Your task to perform on an android device: turn on wifi Image 0: 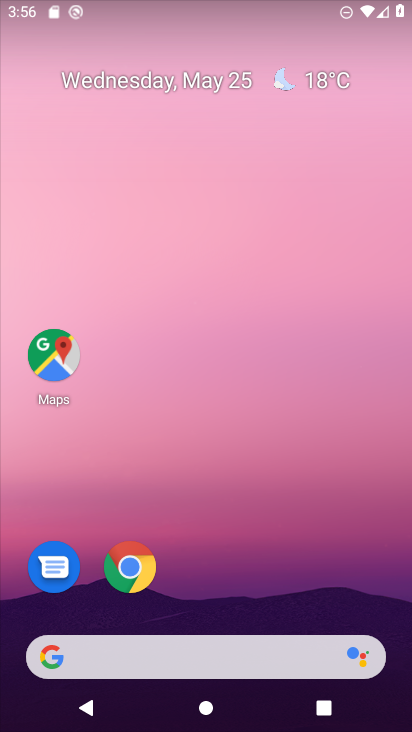
Step 0: drag from (331, 597) to (366, 229)
Your task to perform on an android device: turn on wifi Image 1: 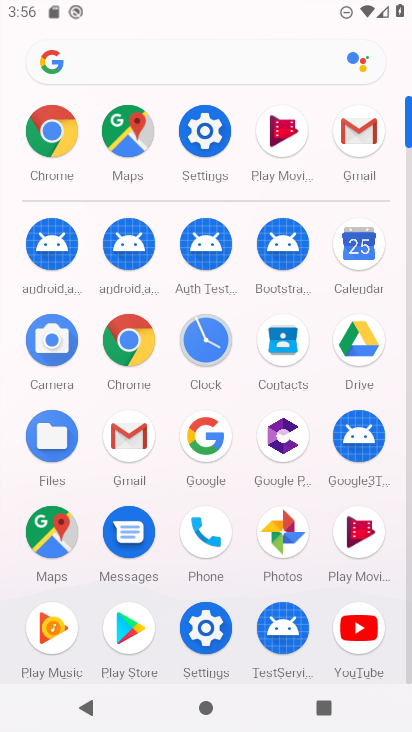
Step 1: click (211, 651)
Your task to perform on an android device: turn on wifi Image 2: 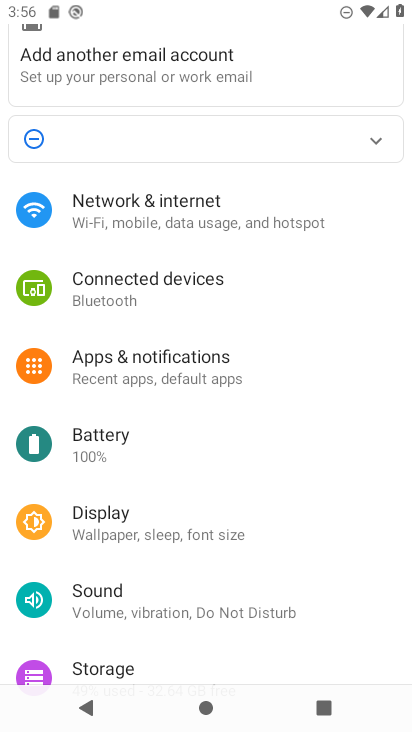
Step 2: drag from (332, 585) to (344, 486)
Your task to perform on an android device: turn on wifi Image 3: 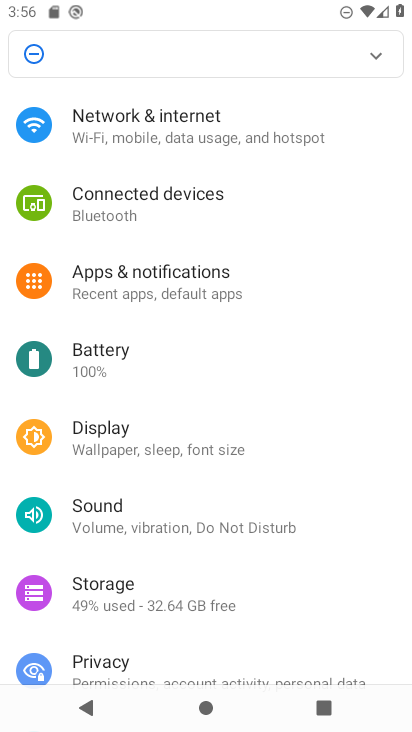
Step 3: drag from (350, 581) to (343, 484)
Your task to perform on an android device: turn on wifi Image 4: 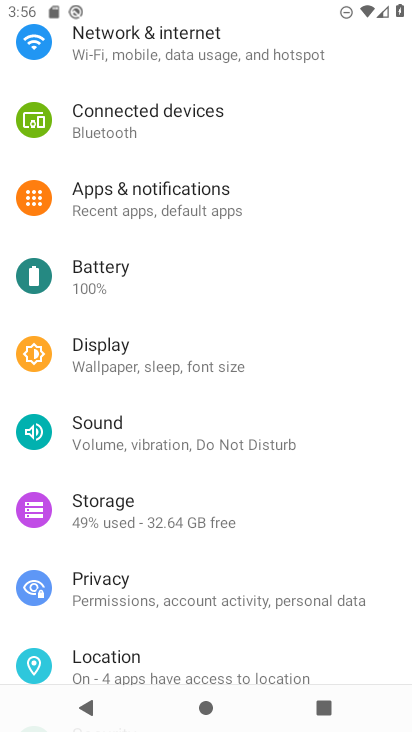
Step 4: drag from (337, 585) to (352, 516)
Your task to perform on an android device: turn on wifi Image 5: 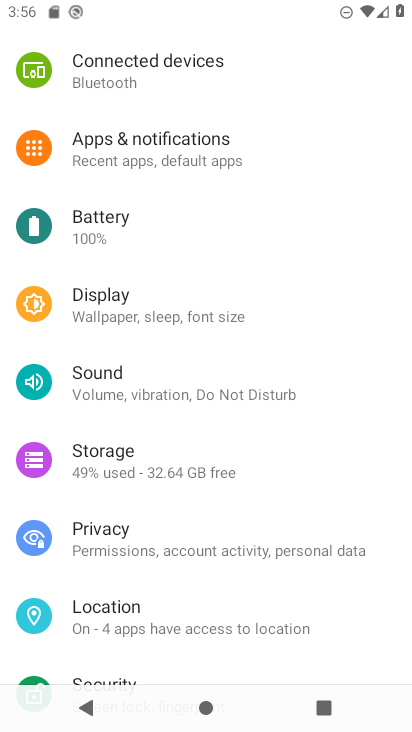
Step 5: drag from (334, 612) to (335, 524)
Your task to perform on an android device: turn on wifi Image 6: 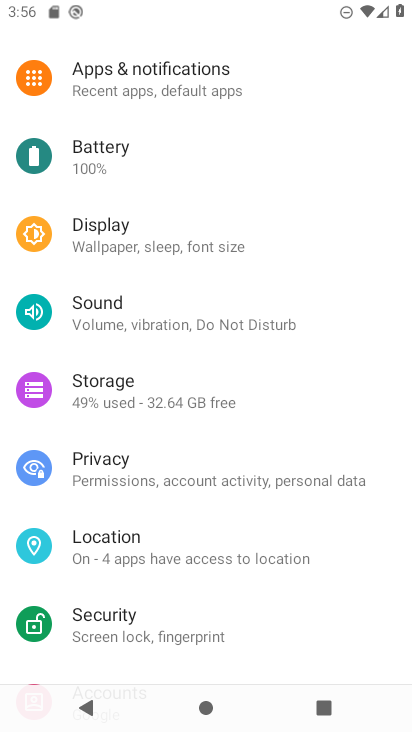
Step 6: drag from (356, 612) to (356, 535)
Your task to perform on an android device: turn on wifi Image 7: 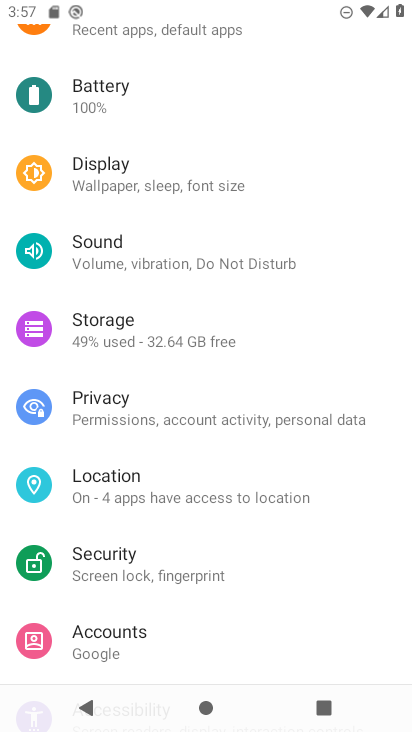
Step 7: drag from (345, 620) to (355, 534)
Your task to perform on an android device: turn on wifi Image 8: 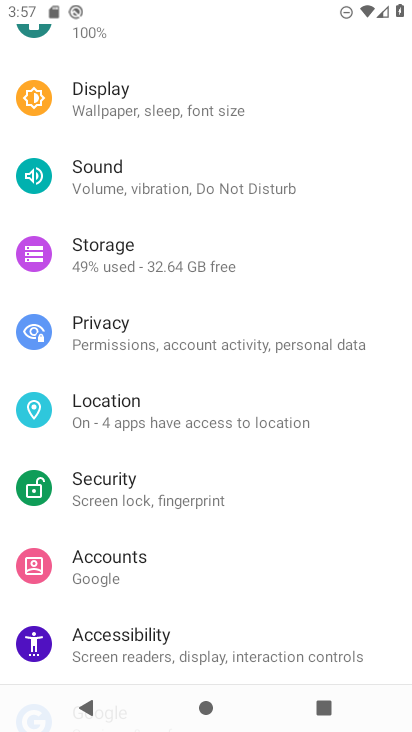
Step 8: drag from (348, 624) to (355, 542)
Your task to perform on an android device: turn on wifi Image 9: 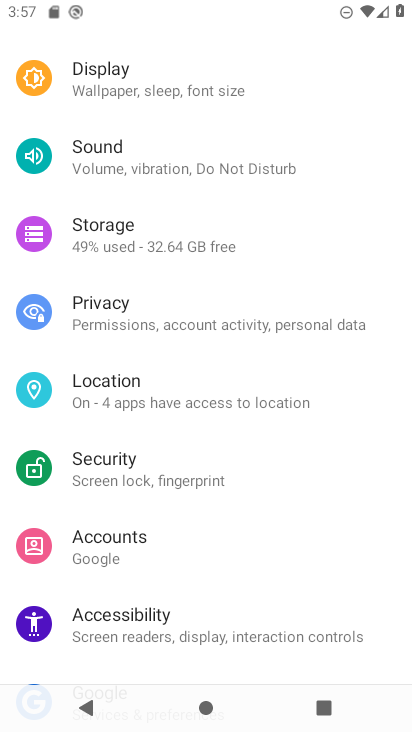
Step 9: drag from (353, 651) to (352, 456)
Your task to perform on an android device: turn on wifi Image 10: 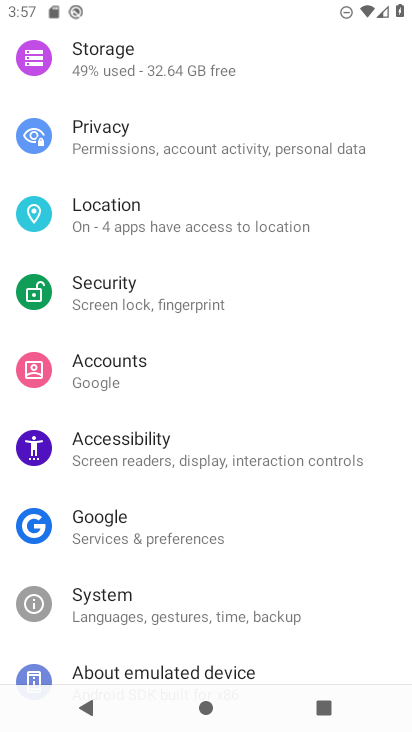
Step 10: drag from (364, 650) to (376, 507)
Your task to perform on an android device: turn on wifi Image 11: 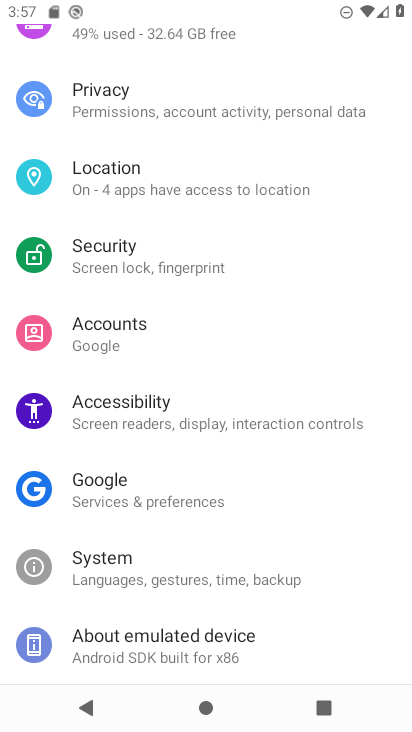
Step 11: drag from (374, 373) to (373, 498)
Your task to perform on an android device: turn on wifi Image 12: 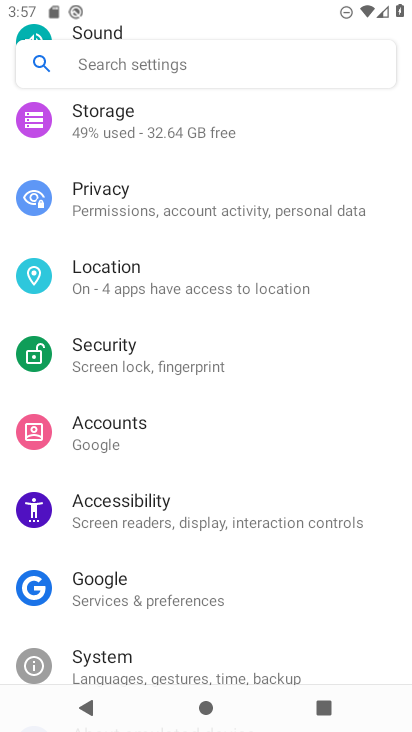
Step 12: drag from (363, 419) to (361, 502)
Your task to perform on an android device: turn on wifi Image 13: 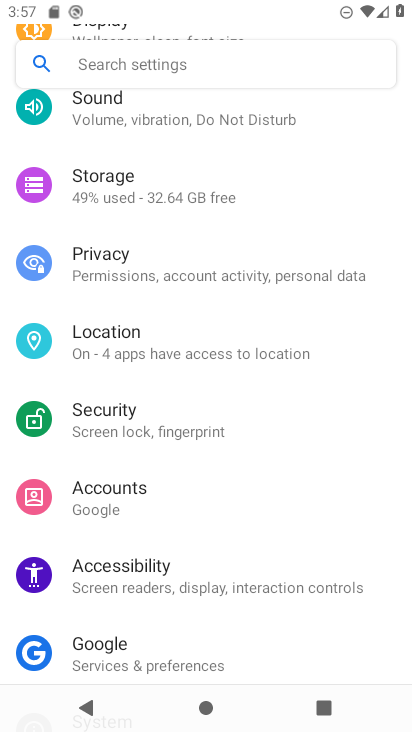
Step 13: drag from (374, 419) to (373, 500)
Your task to perform on an android device: turn on wifi Image 14: 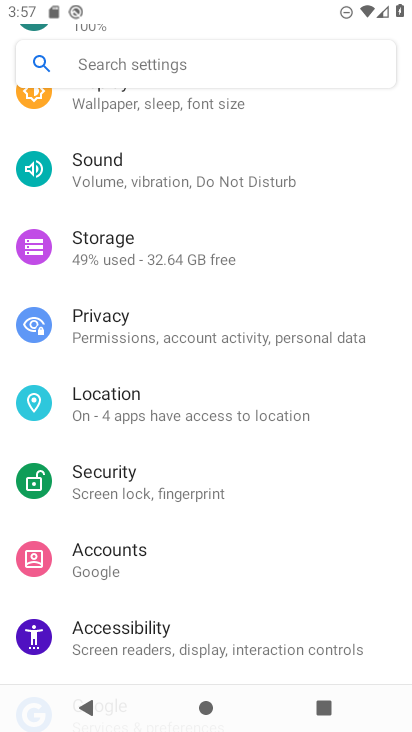
Step 14: drag from (369, 419) to (369, 500)
Your task to perform on an android device: turn on wifi Image 15: 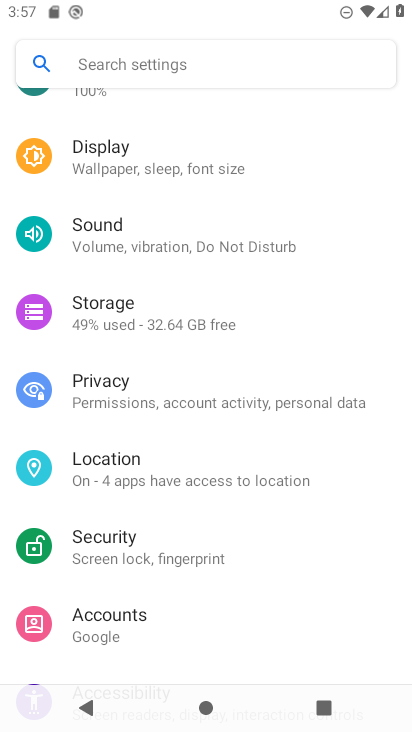
Step 15: drag from (368, 453) to (369, 520)
Your task to perform on an android device: turn on wifi Image 16: 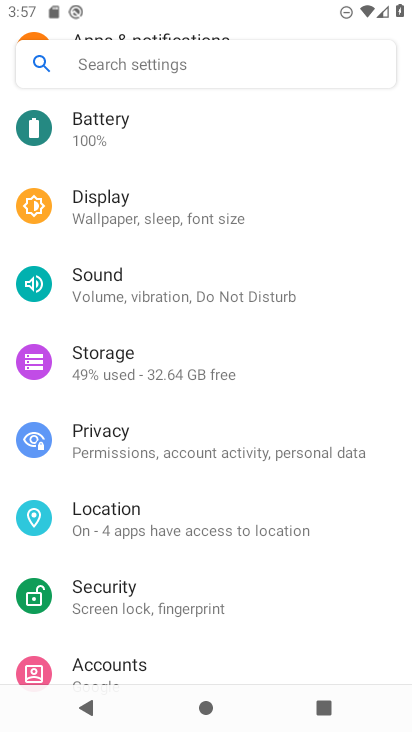
Step 16: drag from (376, 414) to (380, 499)
Your task to perform on an android device: turn on wifi Image 17: 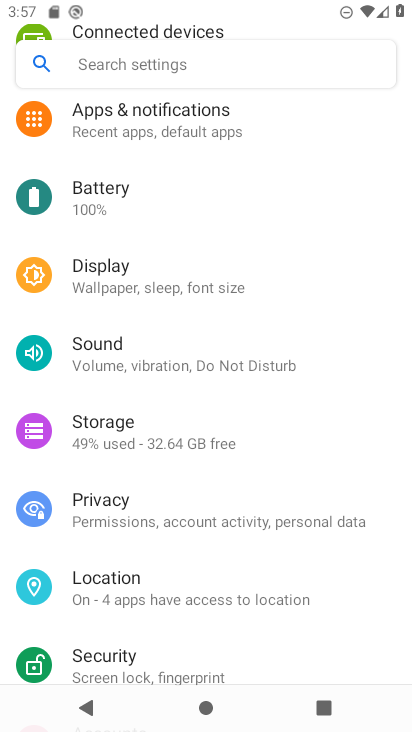
Step 17: drag from (371, 421) to (365, 516)
Your task to perform on an android device: turn on wifi Image 18: 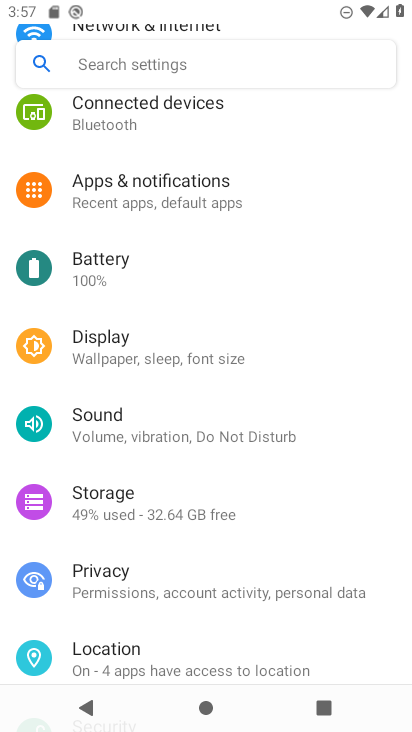
Step 18: drag from (369, 447) to (370, 528)
Your task to perform on an android device: turn on wifi Image 19: 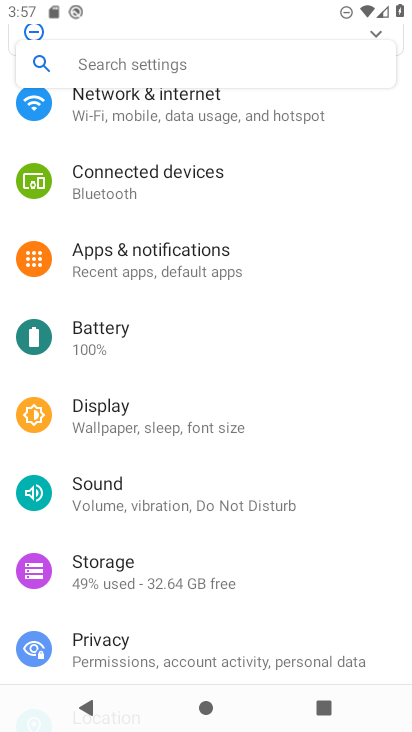
Step 19: drag from (365, 447) to (366, 521)
Your task to perform on an android device: turn on wifi Image 20: 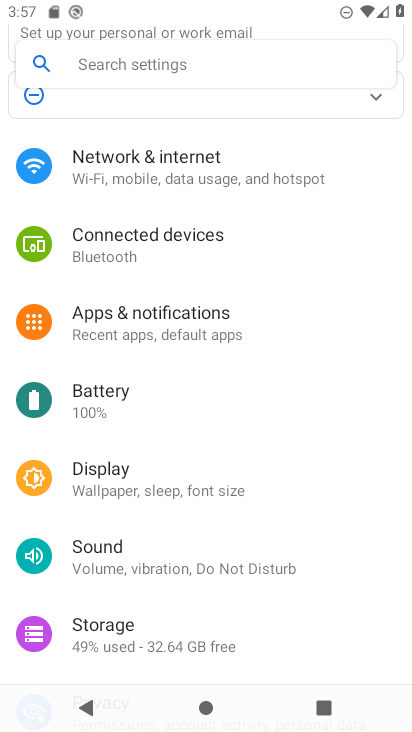
Step 20: drag from (365, 435) to (370, 519)
Your task to perform on an android device: turn on wifi Image 21: 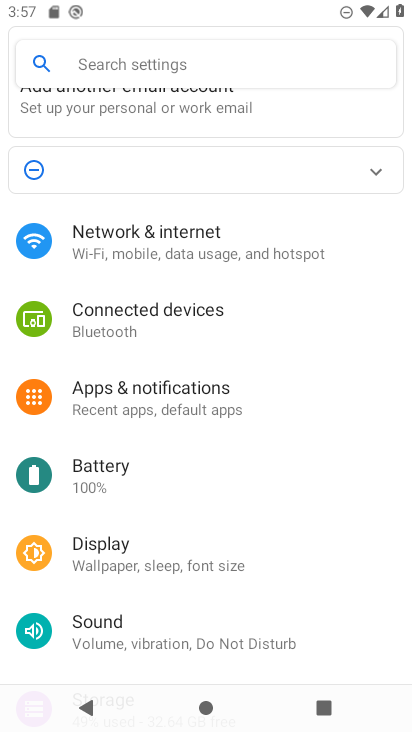
Step 21: drag from (361, 438) to (360, 530)
Your task to perform on an android device: turn on wifi Image 22: 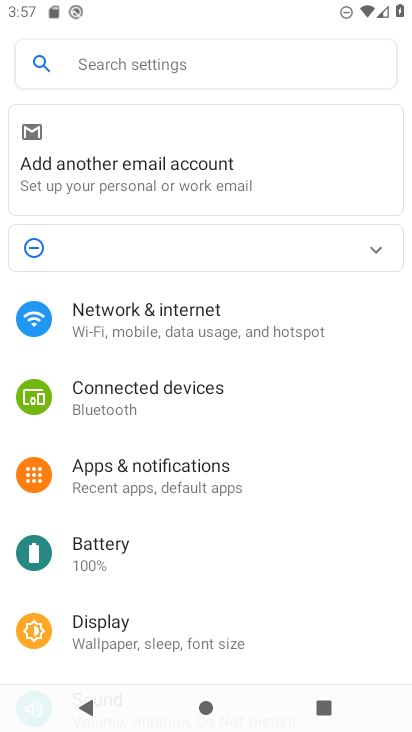
Step 22: drag from (361, 423) to (356, 533)
Your task to perform on an android device: turn on wifi Image 23: 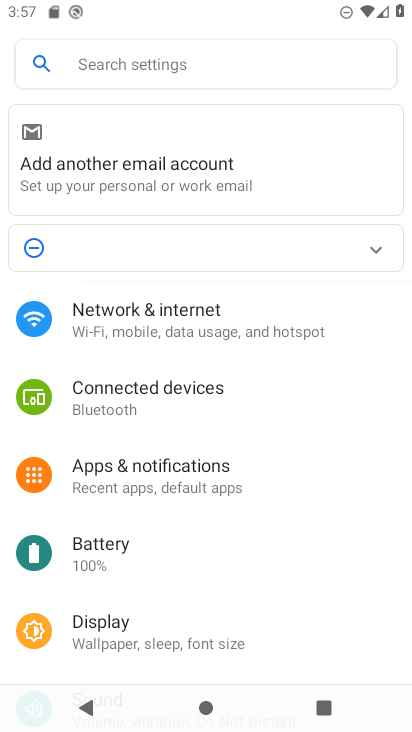
Step 23: click (315, 329)
Your task to perform on an android device: turn on wifi Image 24: 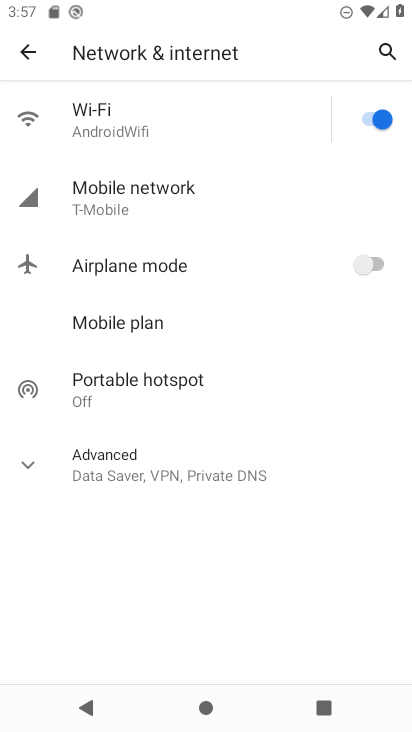
Step 24: task complete